Your task to perform on an android device: Go to Google Image 0: 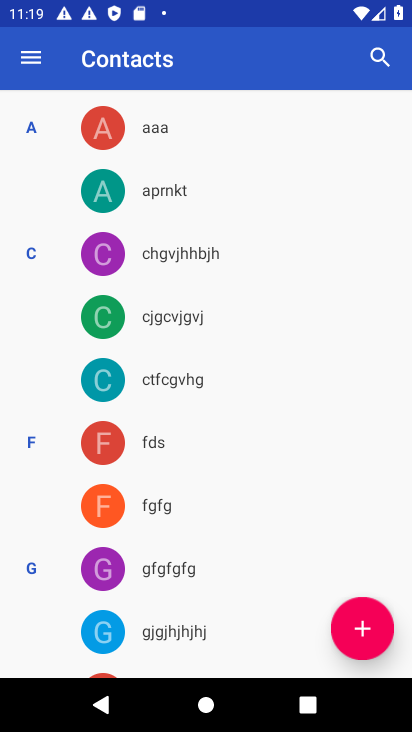
Step 0: press home button
Your task to perform on an android device: Go to Google Image 1: 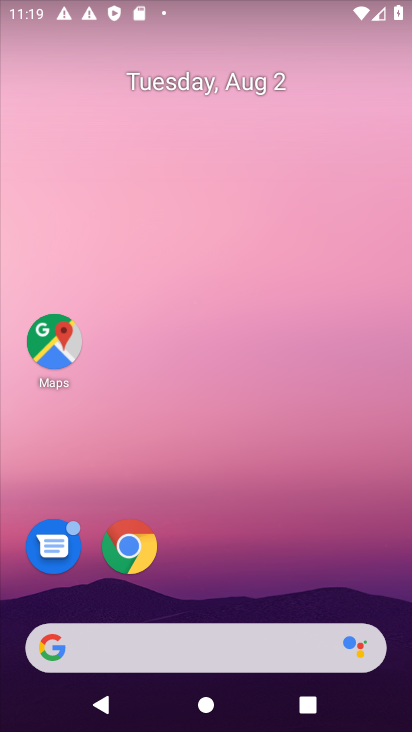
Step 1: drag from (210, 586) to (212, 102)
Your task to perform on an android device: Go to Google Image 2: 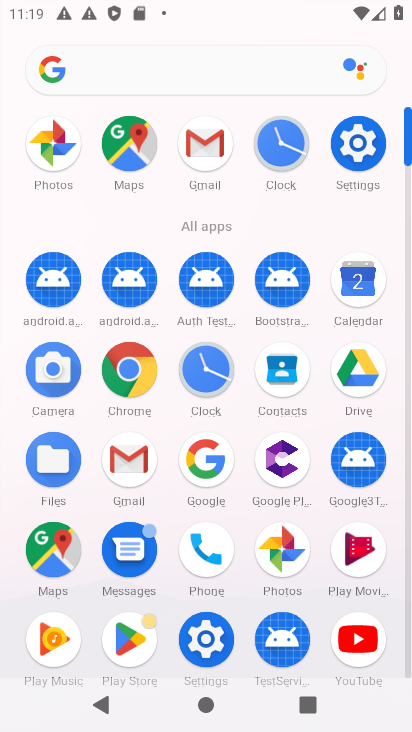
Step 2: click (194, 467)
Your task to perform on an android device: Go to Google Image 3: 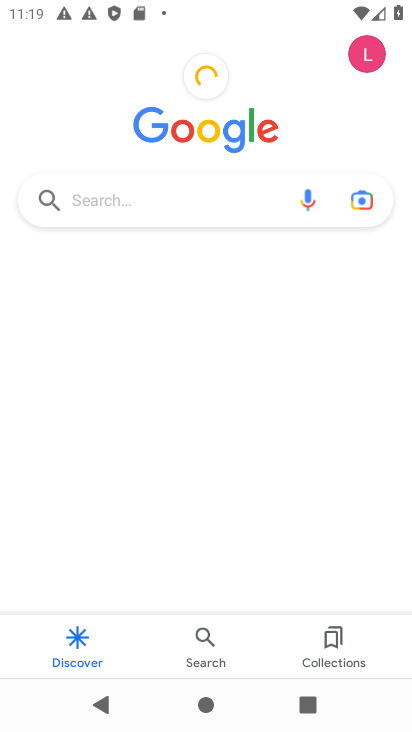
Step 3: task complete